Your task to perform on an android device: Go to display settings Image 0: 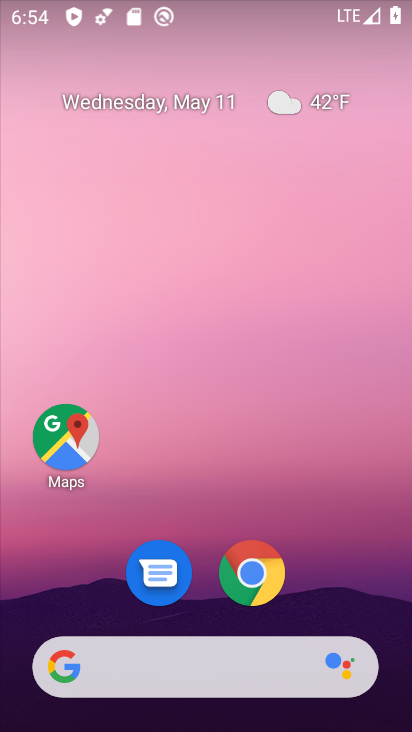
Step 0: drag from (308, 616) to (245, 241)
Your task to perform on an android device: Go to display settings Image 1: 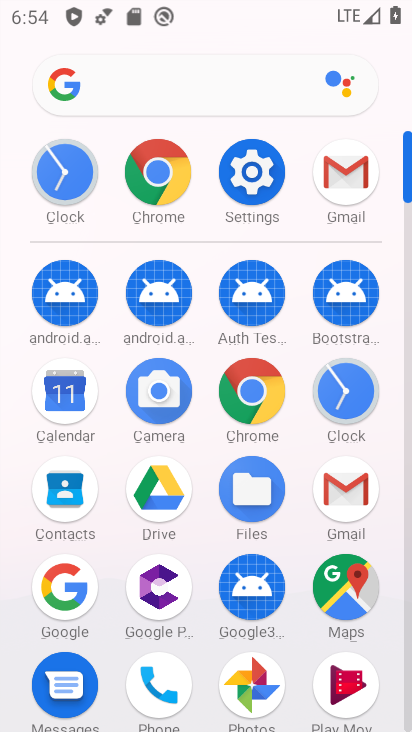
Step 1: click (265, 179)
Your task to perform on an android device: Go to display settings Image 2: 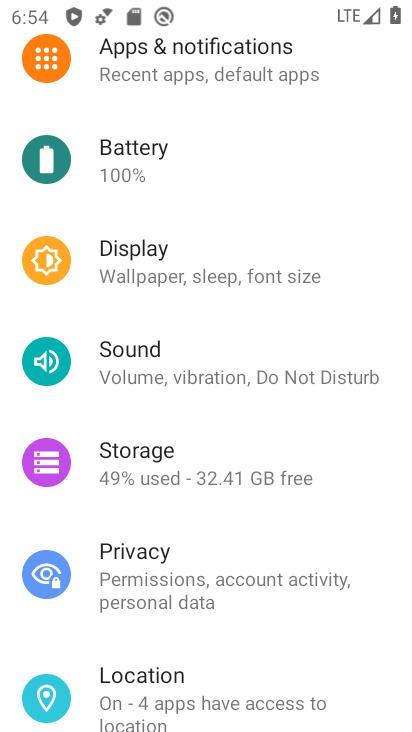
Step 2: click (134, 284)
Your task to perform on an android device: Go to display settings Image 3: 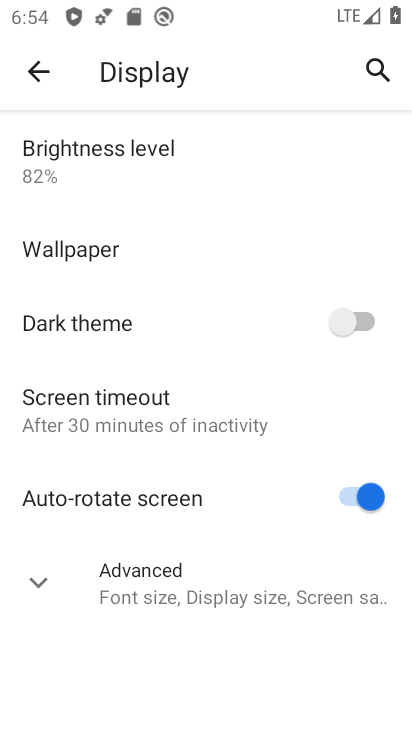
Step 3: task complete